Your task to perform on an android device: turn pop-ups on in chrome Image 0: 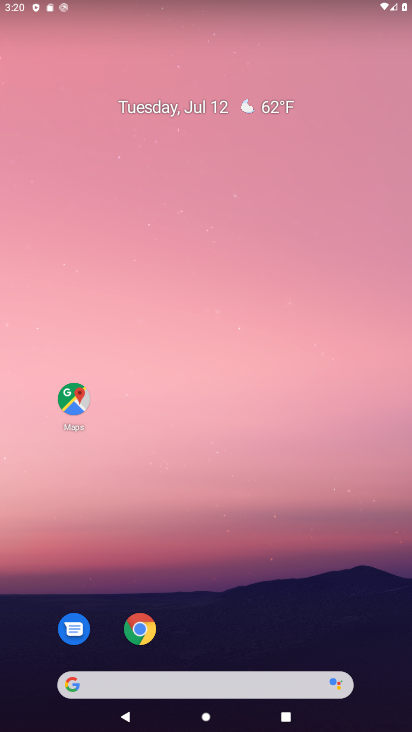
Step 0: click (142, 624)
Your task to perform on an android device: turn pop-ups on in chrome Image 1: 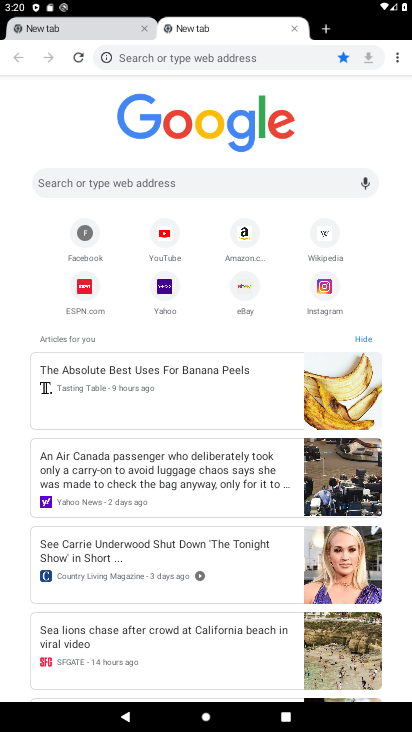
Step 1: drag from (395, 57) to (270, 270)
Your task to perform on an android device: turn pop-ups on in chrome Image 2: 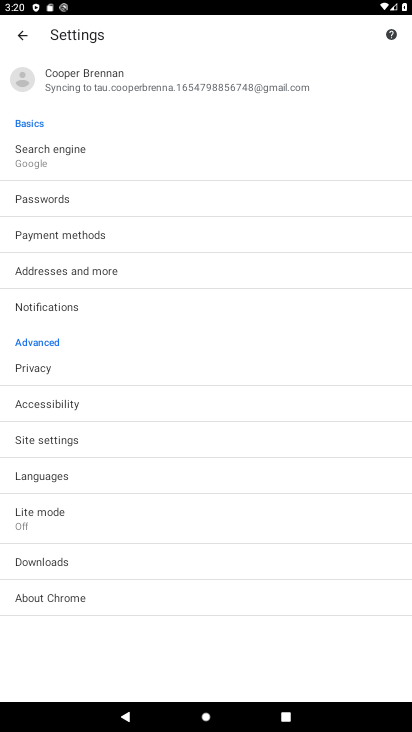
Step 2: click (41, 440)
Your task to perform on an android device: turn pop-ups on in chrome Image 3: 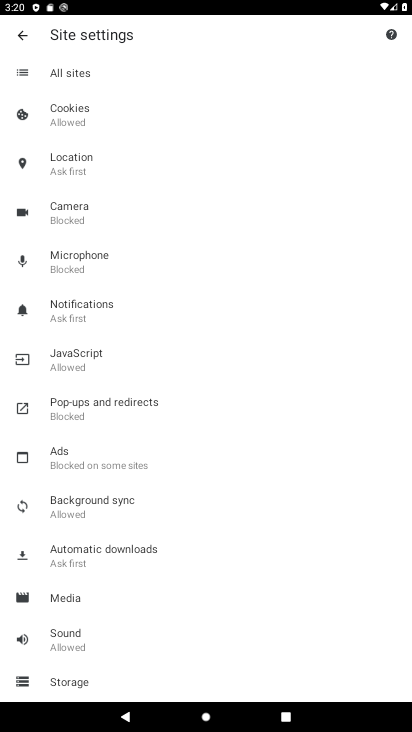
Step 3: click (86, 399)
Your task to perform on an android device: turn pop-ups on in chrome Image 4: 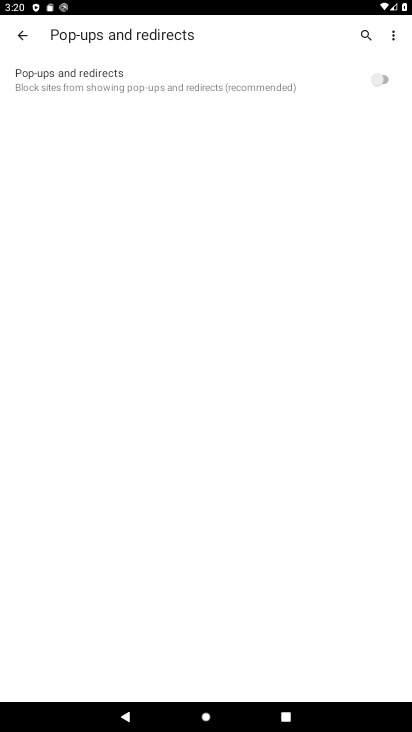
Step 4: click (380, 75)
Your task to perform on an android device: turn pop-ups on in chrome Image 5: 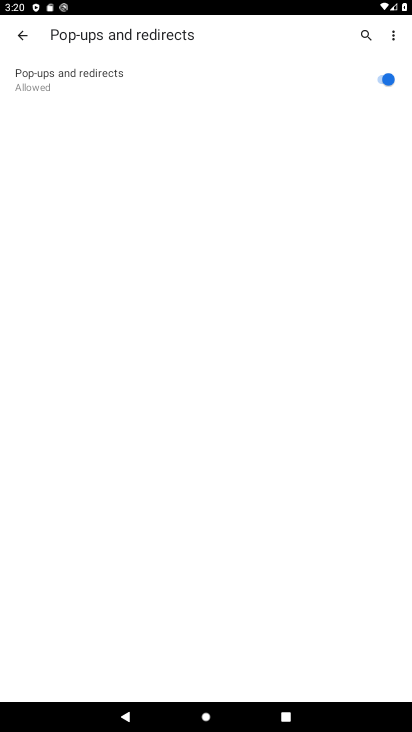
Step 5: task complete